Your task to perform on an android device: open chrome and create a bookmark for the current page Image 0: 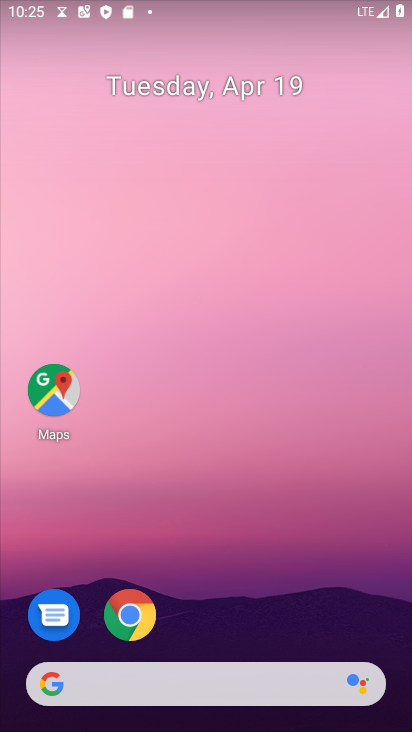
Step 0: drag from (314, 18) to (276, 20)
Your task to perform on an android device: open chrome and create a bookmark for the current page Image 1: 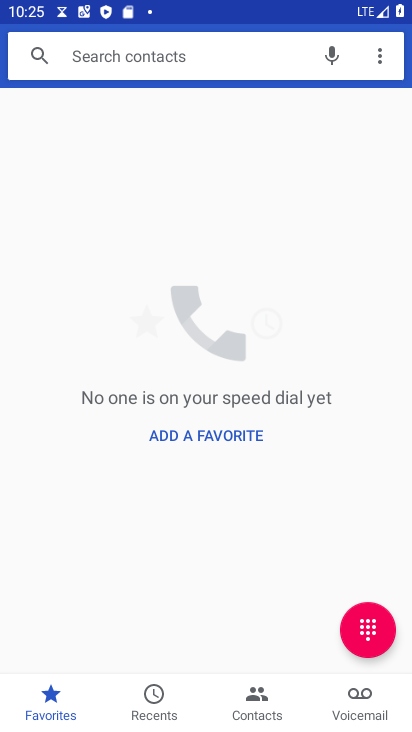
Step 1: press home button
Your task to perform on an android device: open chrome and create a bookmark for the current page Image 2: 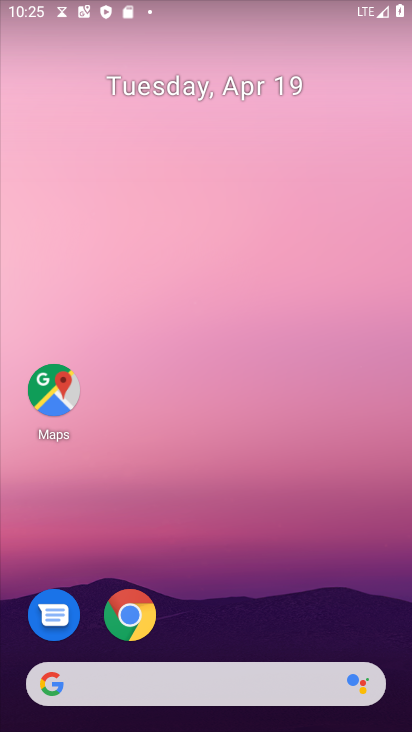
Step 2: drag from (209, 650) to (321, 113)
Your task to perform on an android device: open chrome and create a bookmark for the current page Image 3: 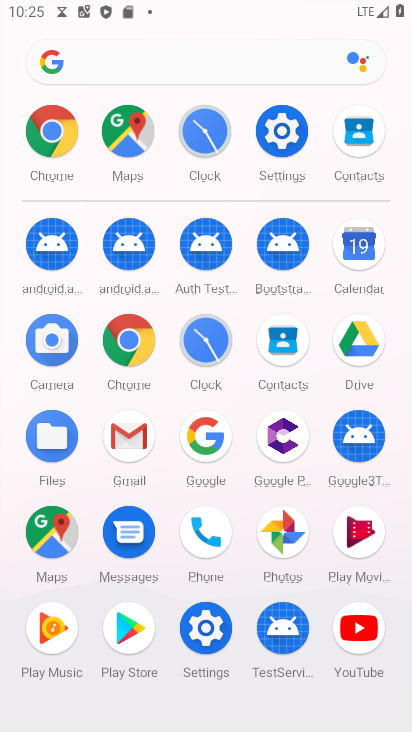
Step 3: drag from (220, 636) to (329, 320)
Your task to perform on an android device: open chrome and create a bookmark for the current page Image 4: 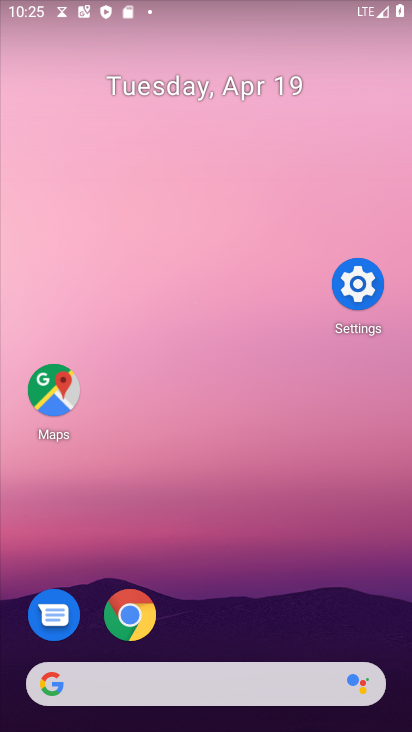
Step 4: click (128, 605)
Your task to perform on an android device: open chrome and create a bookmark for the current page Image 5: 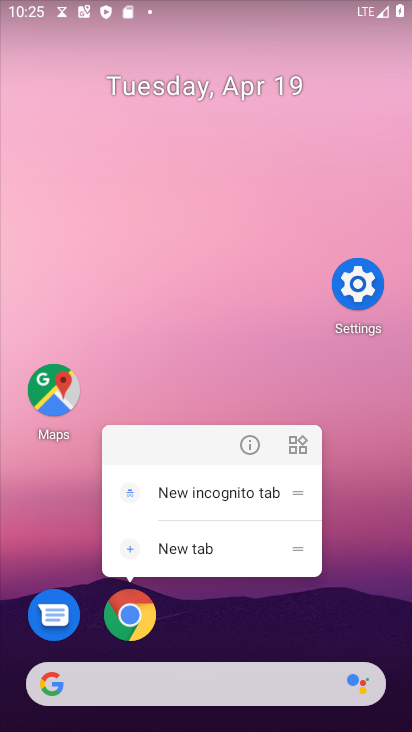
Step 5: click (251, 448)
Your task to perform on an android device: open chrome and create a bookmark for the current page Image 6: 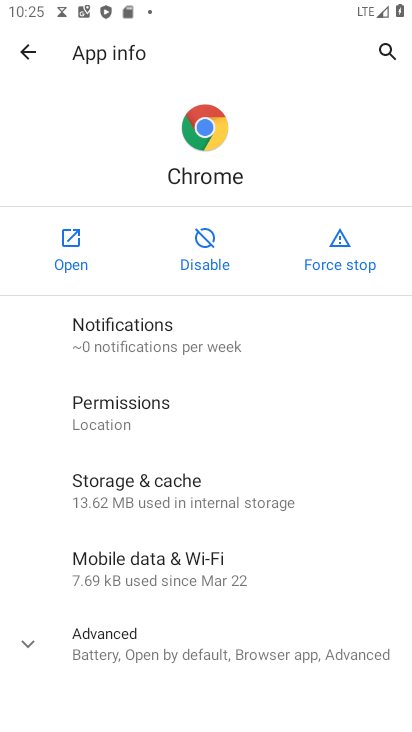
Step 6: click (71, 251)
Your task to perform on an android device: open chrome and create a bookmark for the current page Image 7: 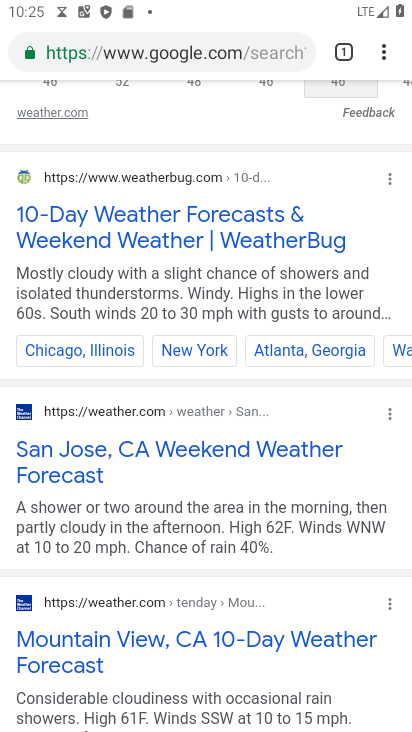
Step 7: drag from (207, 145) to (284, 545)
Your task to perform on an android device: open chrome and create a bookmark for the current page Image 8: 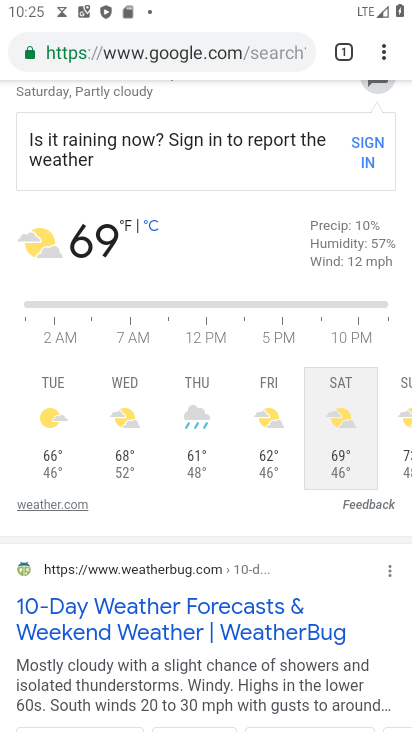
Step 8: drag from (226, 686) to (349, 247)
Your task to perform on an android device: open chrome and create a bookmark for the current page Image 9: 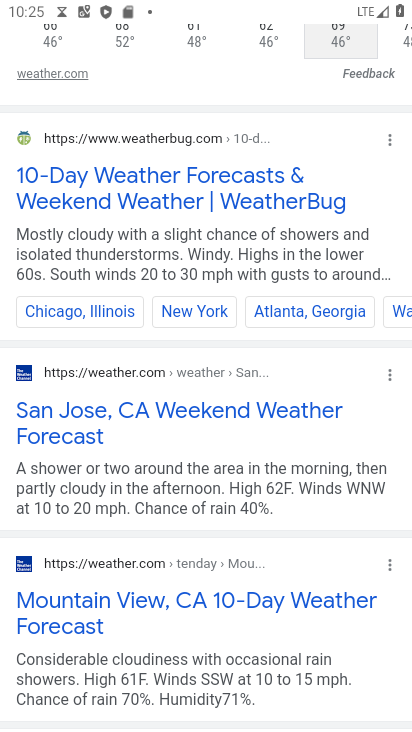
Step 9: drag from (264, 217) to (264, 666)
Your task to perform on an android device: open chrome and create a bookmark for the current page Image 10: 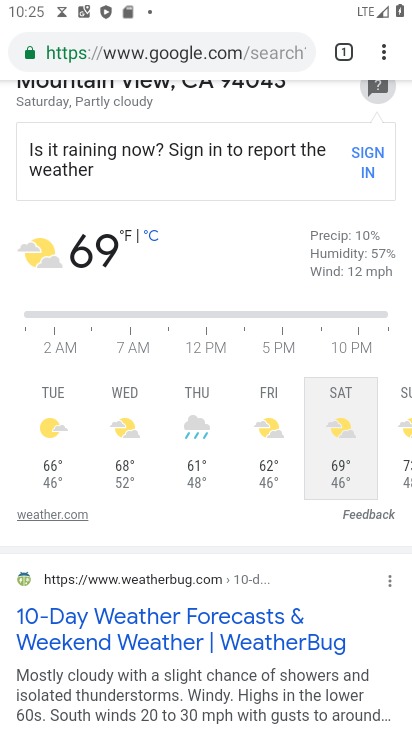
Step 10: click (380, 63)
Your task to perform on an android device: open chrome and create a bookmark for the current page Image 11: 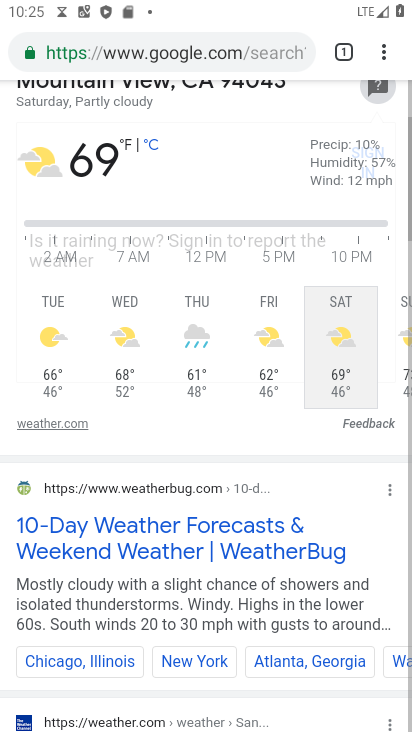
Step 11: drag from (384, 41) to (246, 188)
Your task to perform on an android device: open chrome and create a bookmark for the current page Image 12: 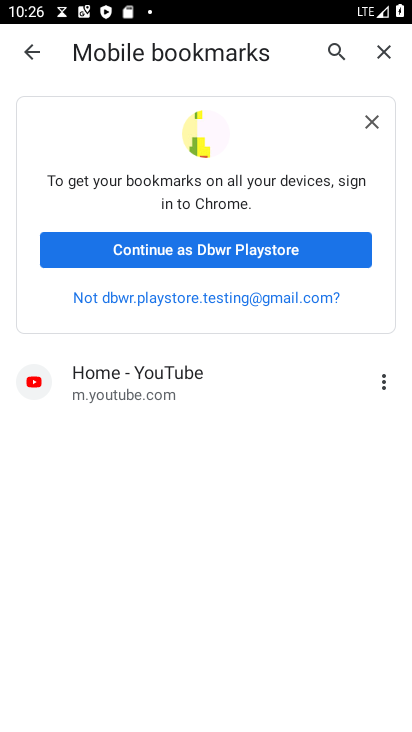
Step 12: click (392, 41)
Your task to perform on an android device: open chrome and create a bookmark for the current page Image 13: 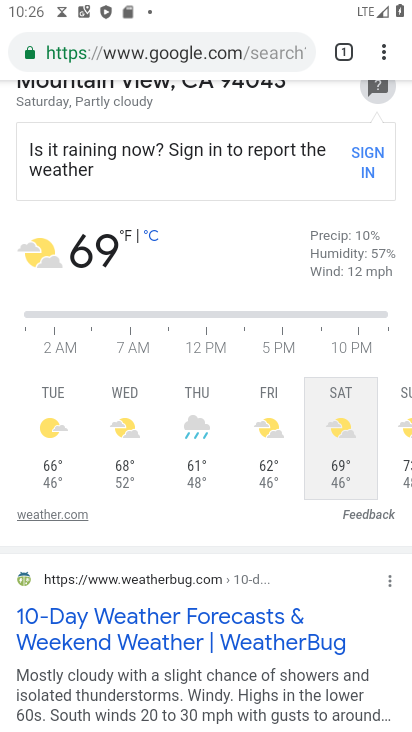
Step 13: task complete